Your task to perform on an android device: Clear the shopping cart on target.com. Search for usb-a on target.com, select the first entry, add it to the cart, then select checkout. Image 0: 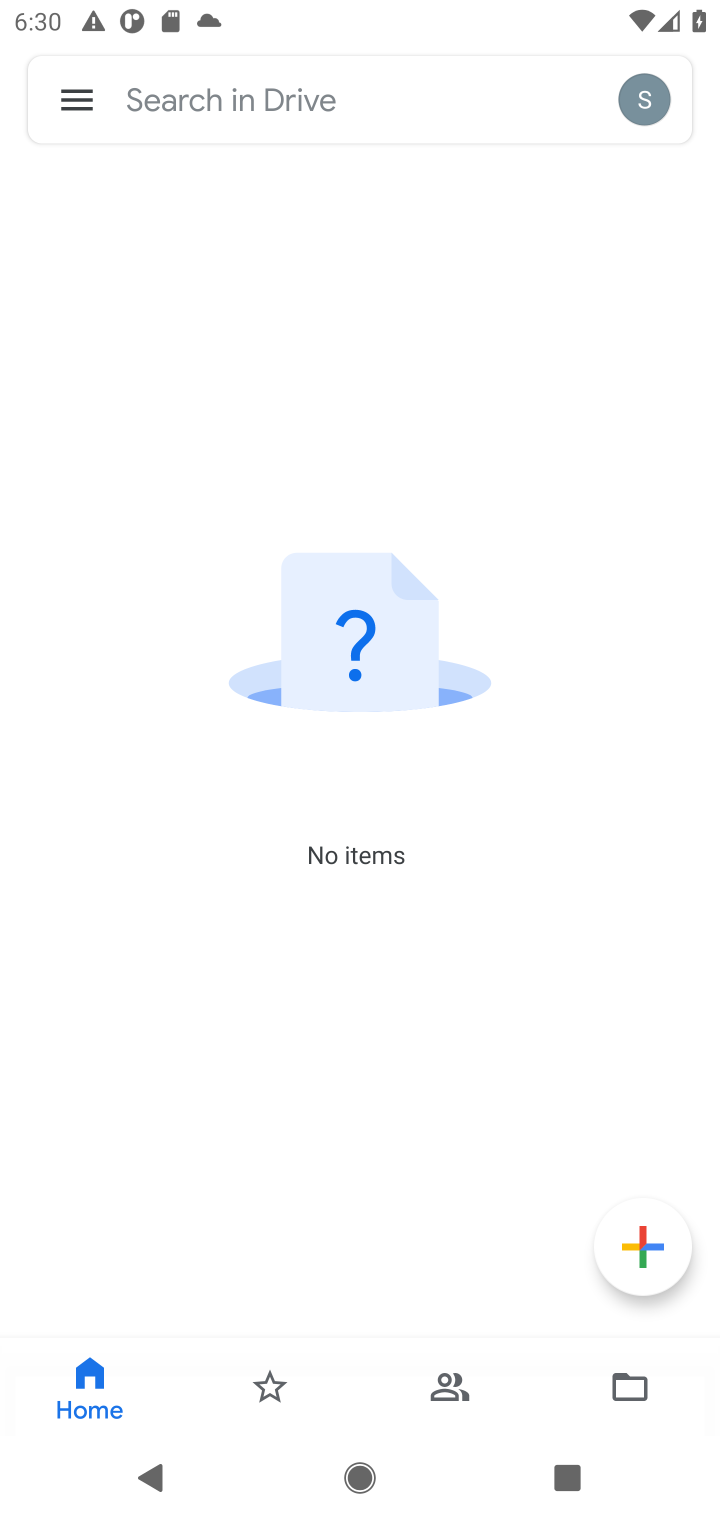
Step 0: press home button
Your task to perform on an android device: Clear the shopping cart on target.com. Search for usb-a on target.com, select the first entry, add it to the cart, then select checkout. Image 1: 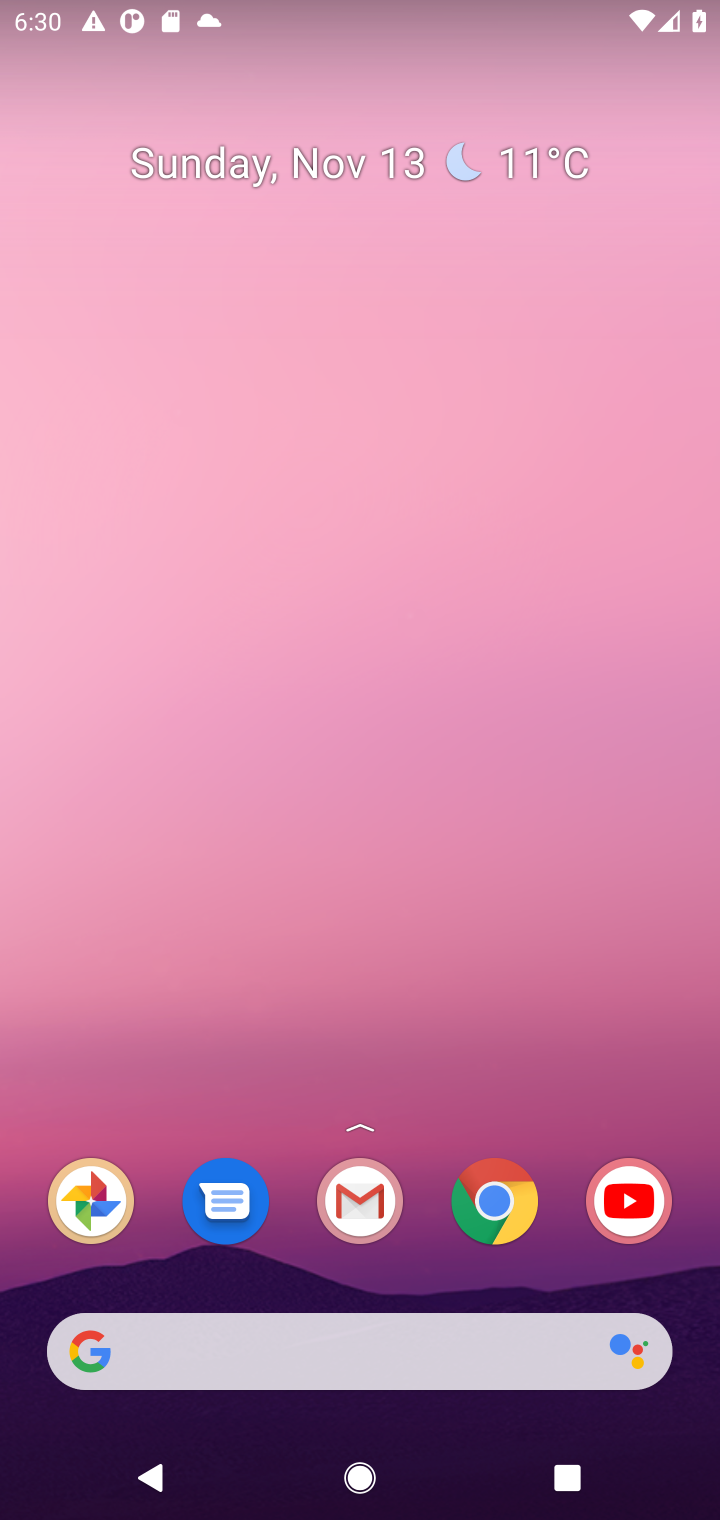
Step 1: drag from (429, 1292) to (713, 226)
Your task to perform on an android device: Clear the shopping cart on target.com. Search for usb-a on target.com, select the first entry, add it to the cart, then select checkout. Image 2: 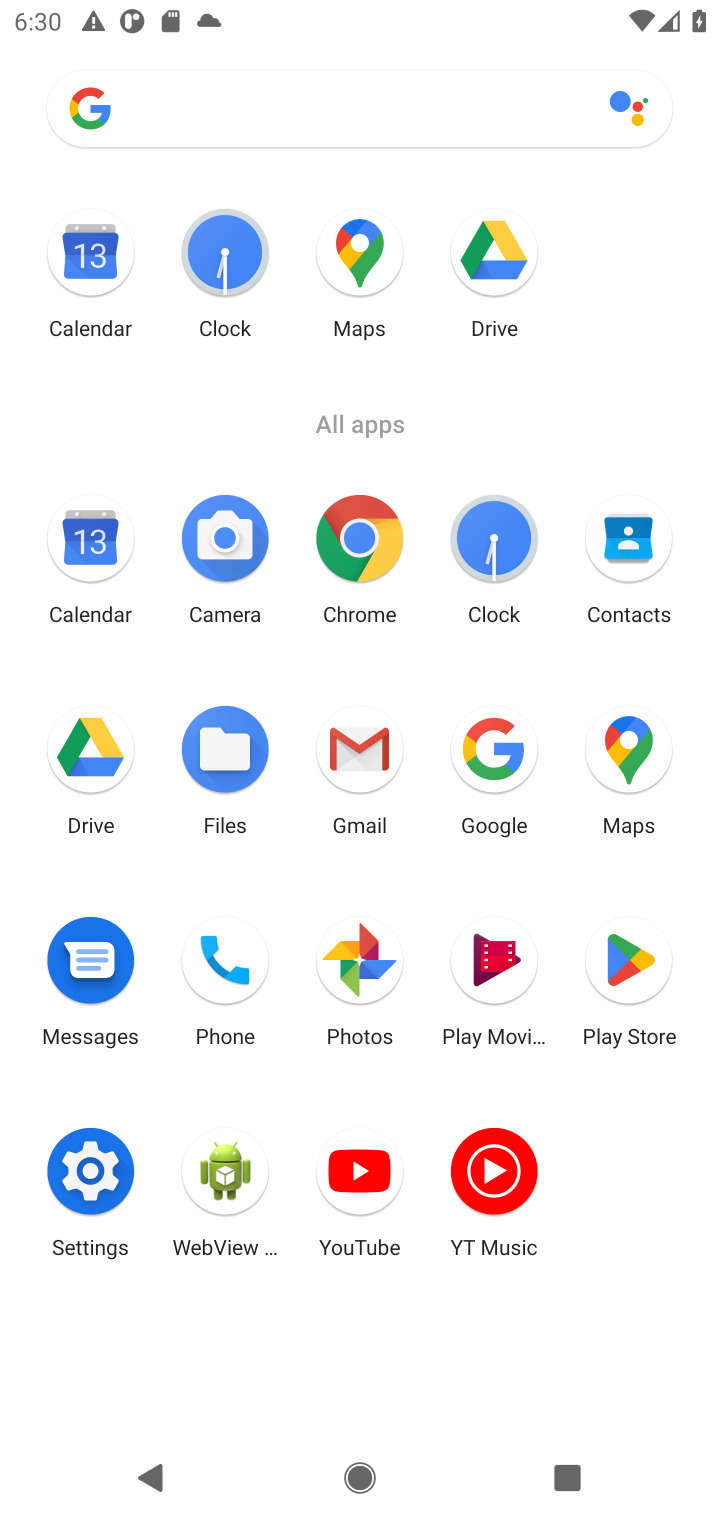
Step 2: click (351, 530)
Your task to perform on an android device: Clear the shopping cart on target.com. Search for usb-a on target.com, select the first entry, add it to the cart, then select checkout. Image 3: 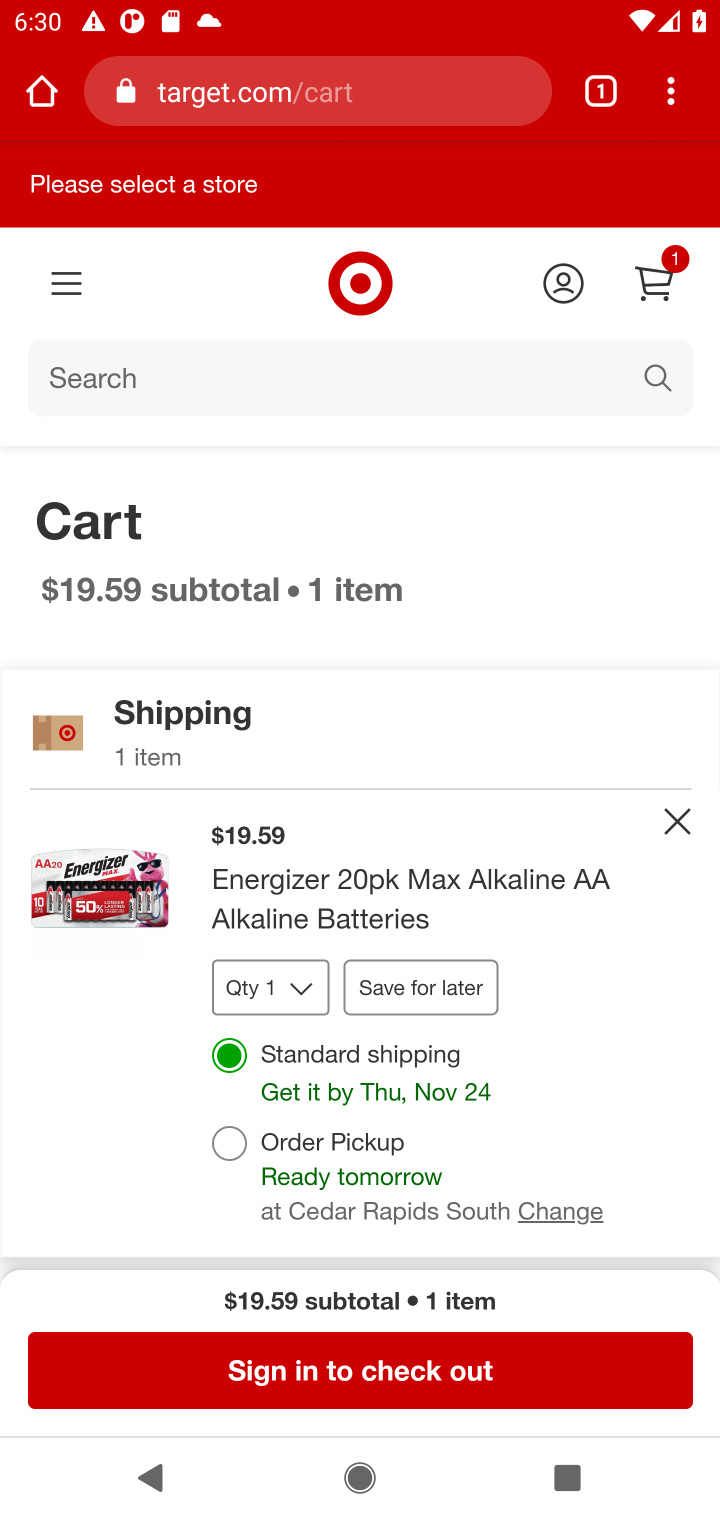
Step 3: click (328, 109)
Your task to perform on an android device: Clear the shopping cart on target.com. Search for usb-a on target.com, select the first entry, add it to the cart, then select checkout. Image 4: 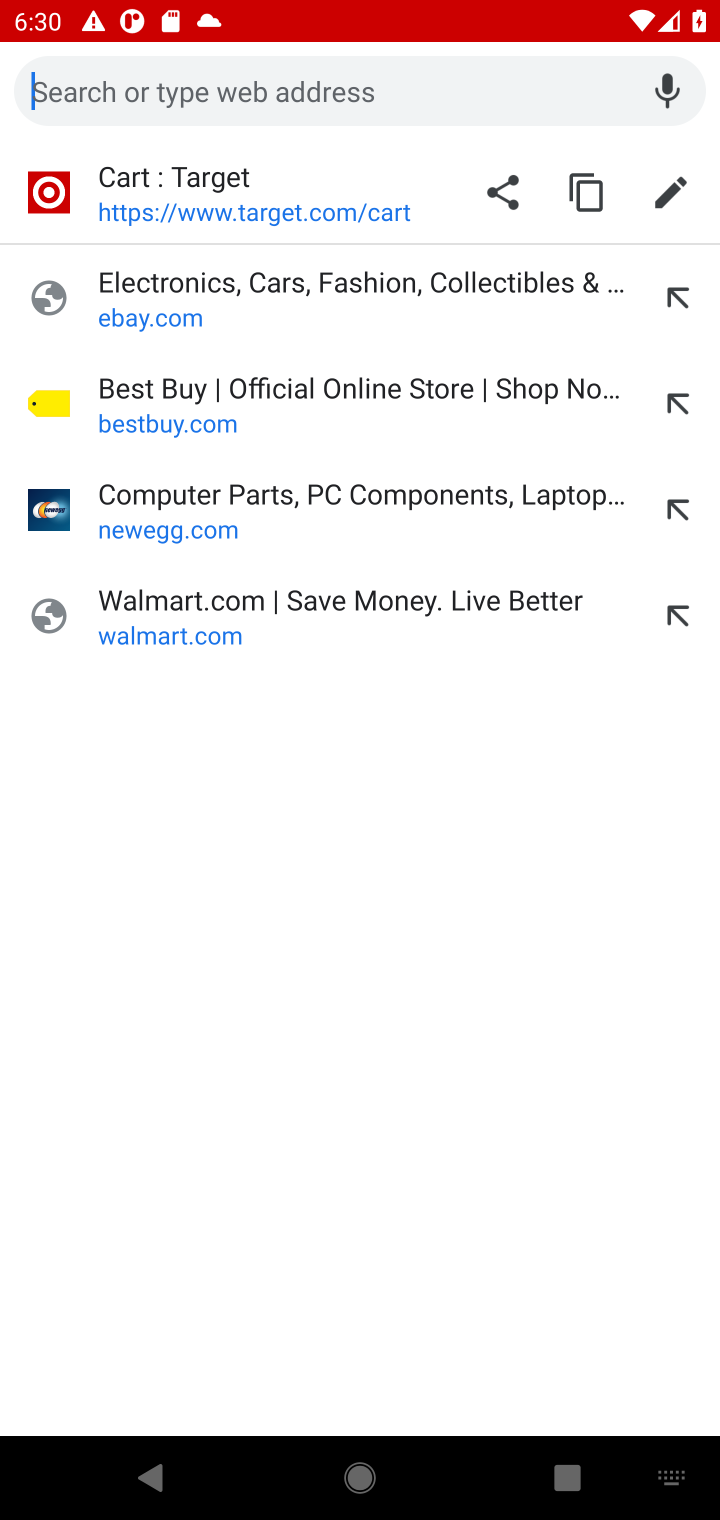
Step 4: type "target.com"
Your task to perform on an android device: Clear the shopping cart on target.com. Search for usb-a on target.com, select the first entry, add it to the cart, then select checkout. Image 5: 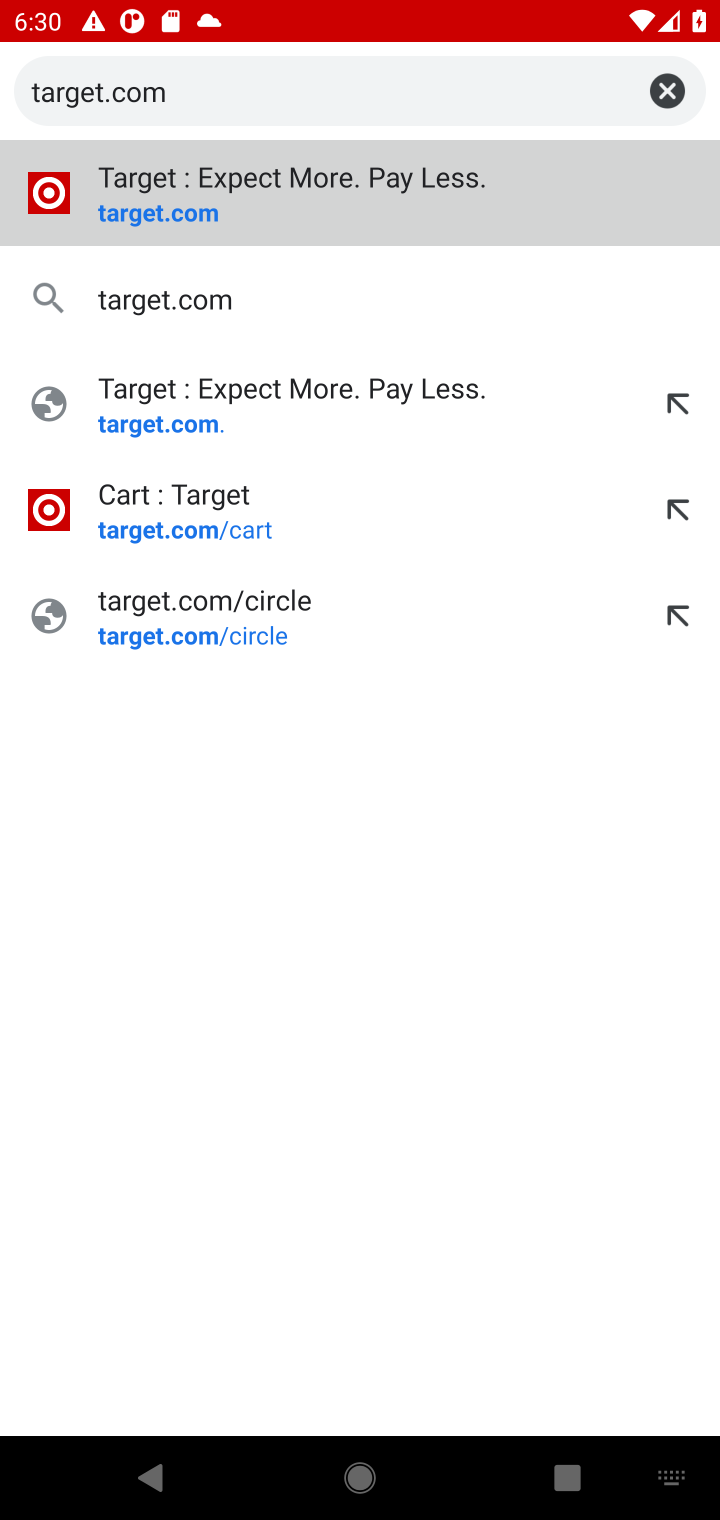
Step 5: press enter
Your task to perform on an android device: Clear the shopping cart on target.com. Search for usb-a on target.com, select the first entry, add it to the cart, then select checkout. Image 6: 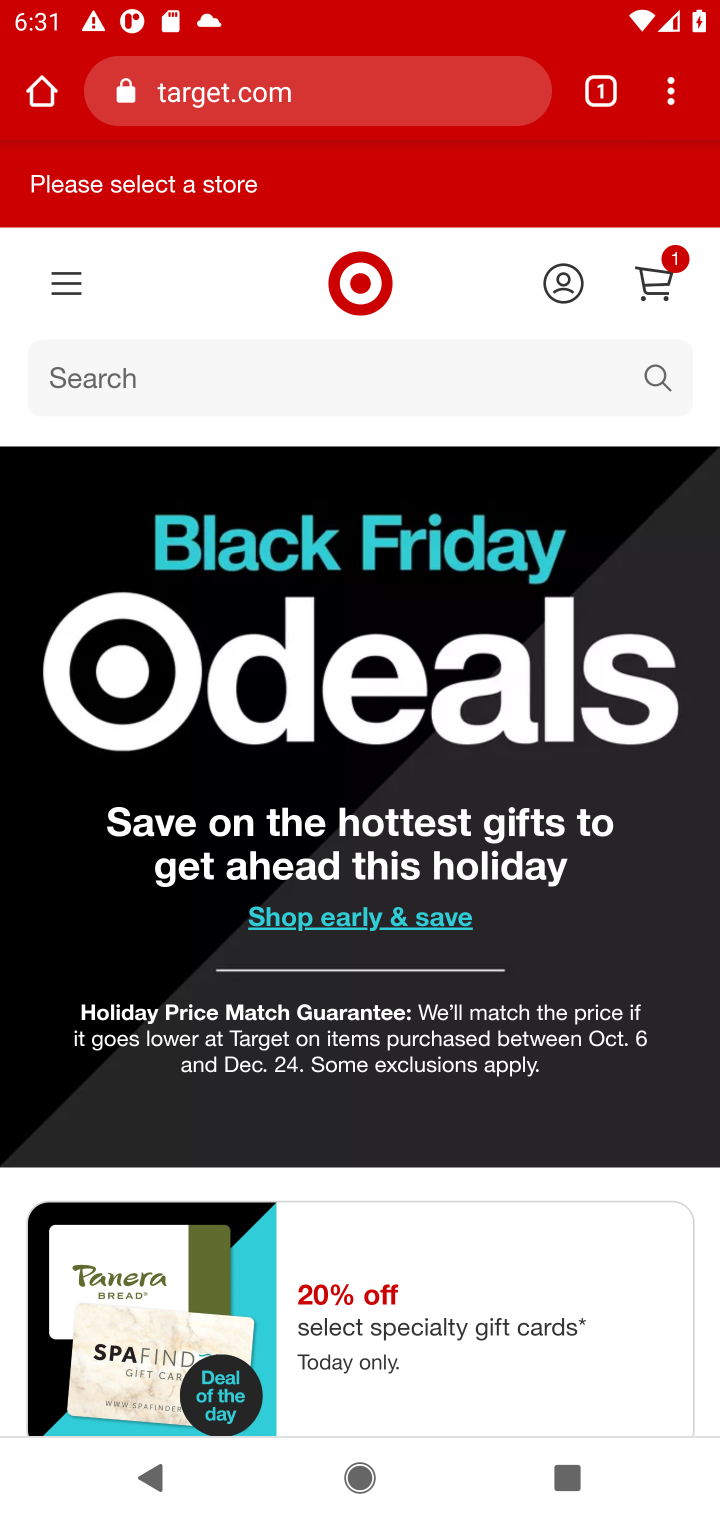
Step 6: click (647, 270)
Your task to perform on an android device: Clear the shopping cart on target.com. Search for usb-a on target.com, select the first entry, add it to the cart, then select checkout. Image 7: 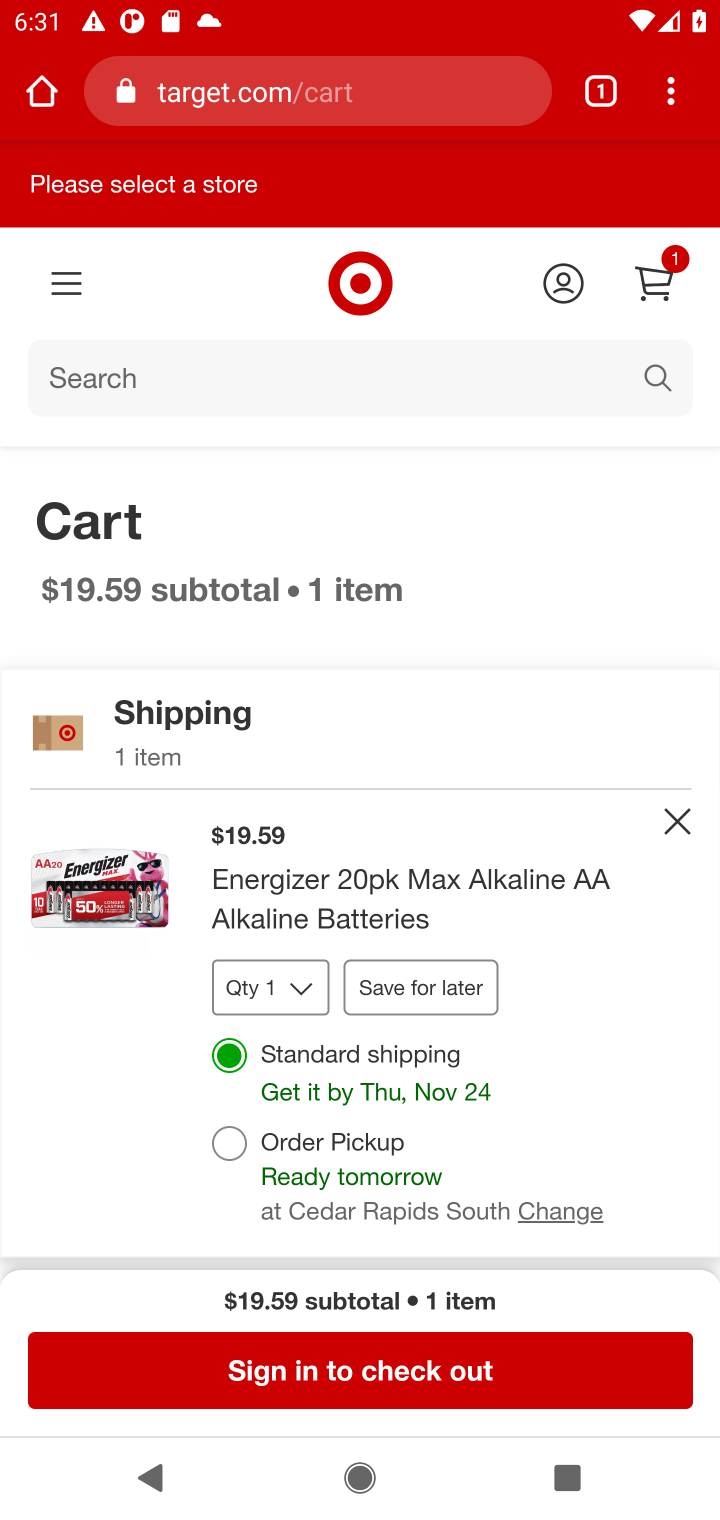
Step 7: click (649, 271)
Your task to perform on an android device: Clear the shopping cart on target.com. Search for usb-a on target.com, select the first entry, add it to the cart, then select checkout. Image 8: 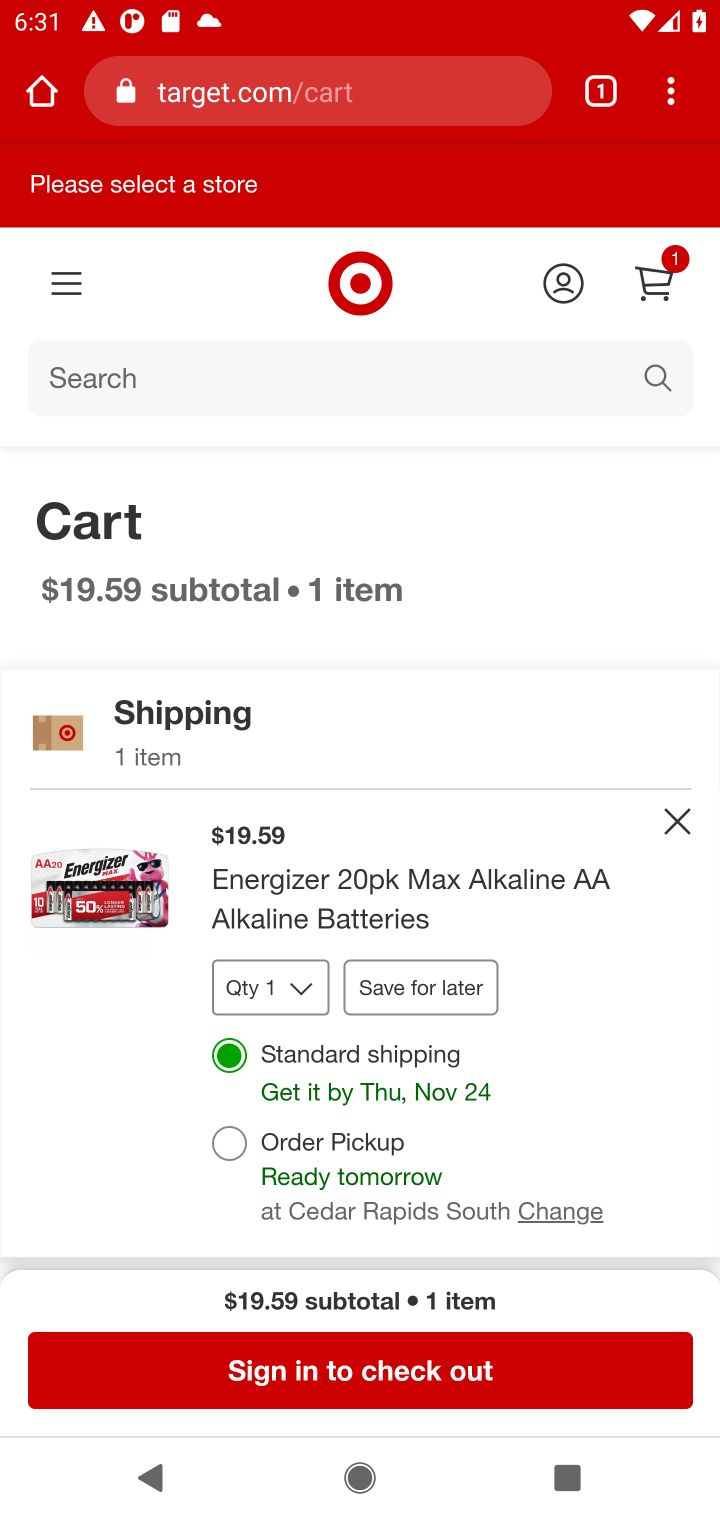
Step 8: click (677, 819)
Your task to perform on an android device: Clear the shopping cart on target.com. Search for usb-a on target.com, select the first entry, add it to the cart, then select checkout. Image 9: 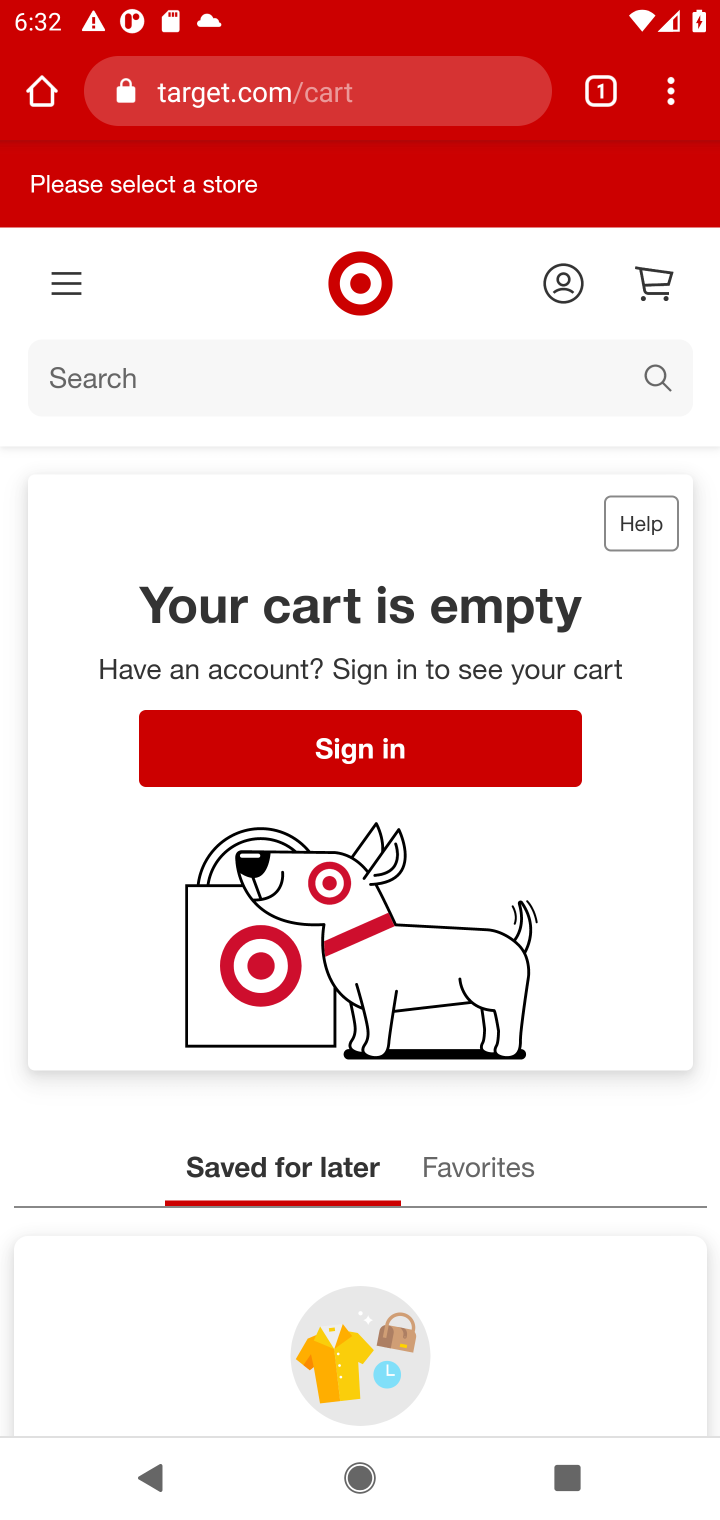
Step 9: click (410, 368)
Your task to perform on an android device: Clear the shopping cart on target.com. Search for usb-a on target.com, select the first entry, add it to the cart, then select checkout. Image 10: 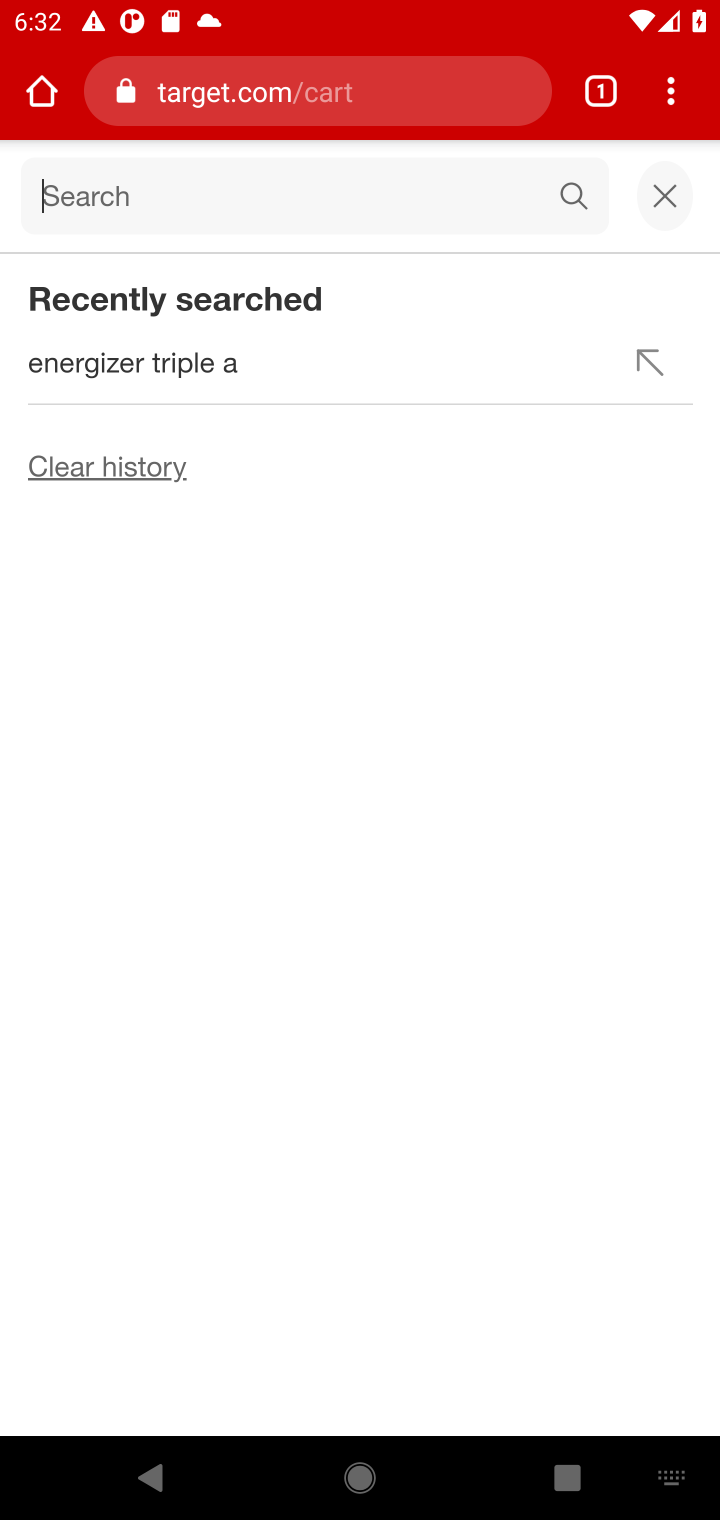
Step 10: type "usb -a "
Your task to perform on an android device: Clear the shopping cart on target.com. Search for usb-a on target.com, select the first entry, add it to the cart, then select checkout. Image 11: 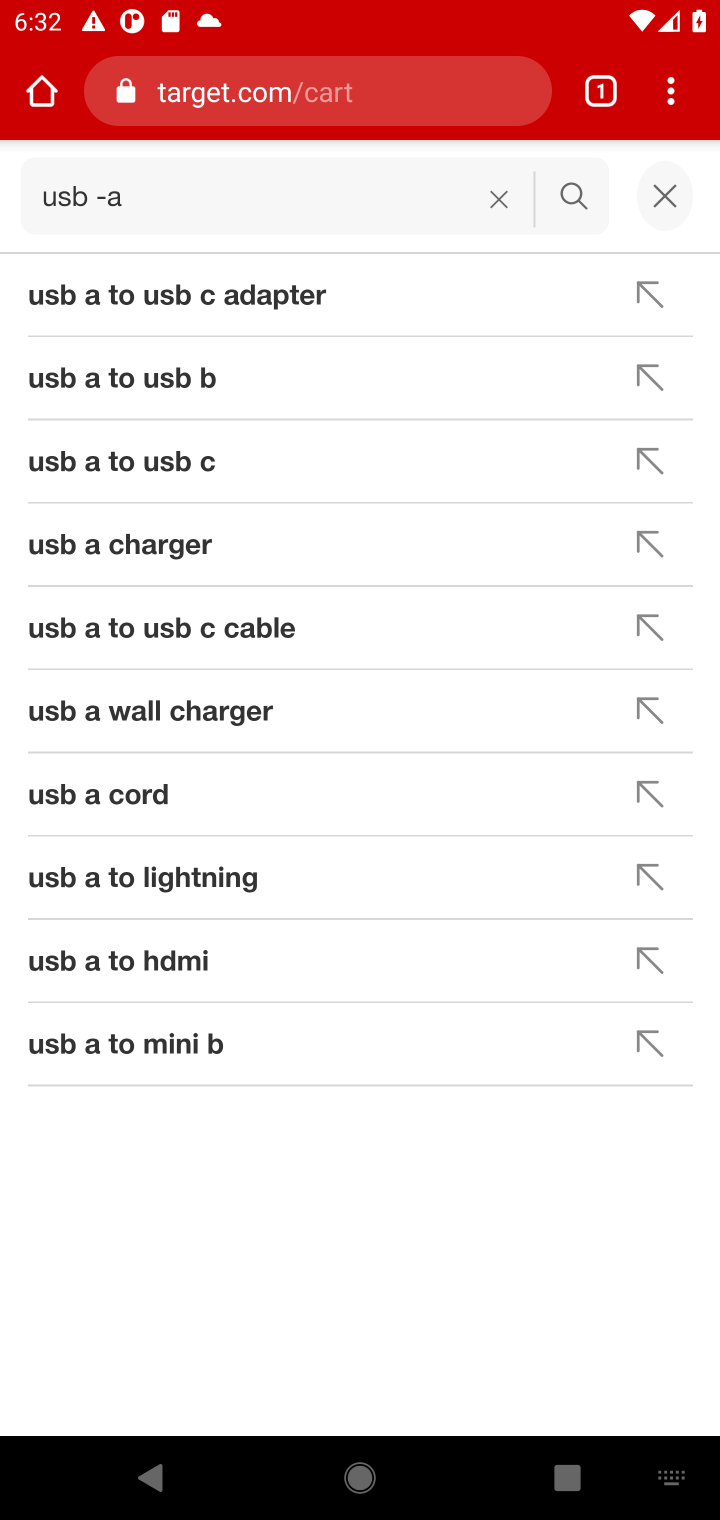
Step 11: press enter
Your task to perform on an android device: Clear the shopping cart on target.com. Search for usb-a on target.com, select the first entry, add it to the cart, then select checkout. Image 12: 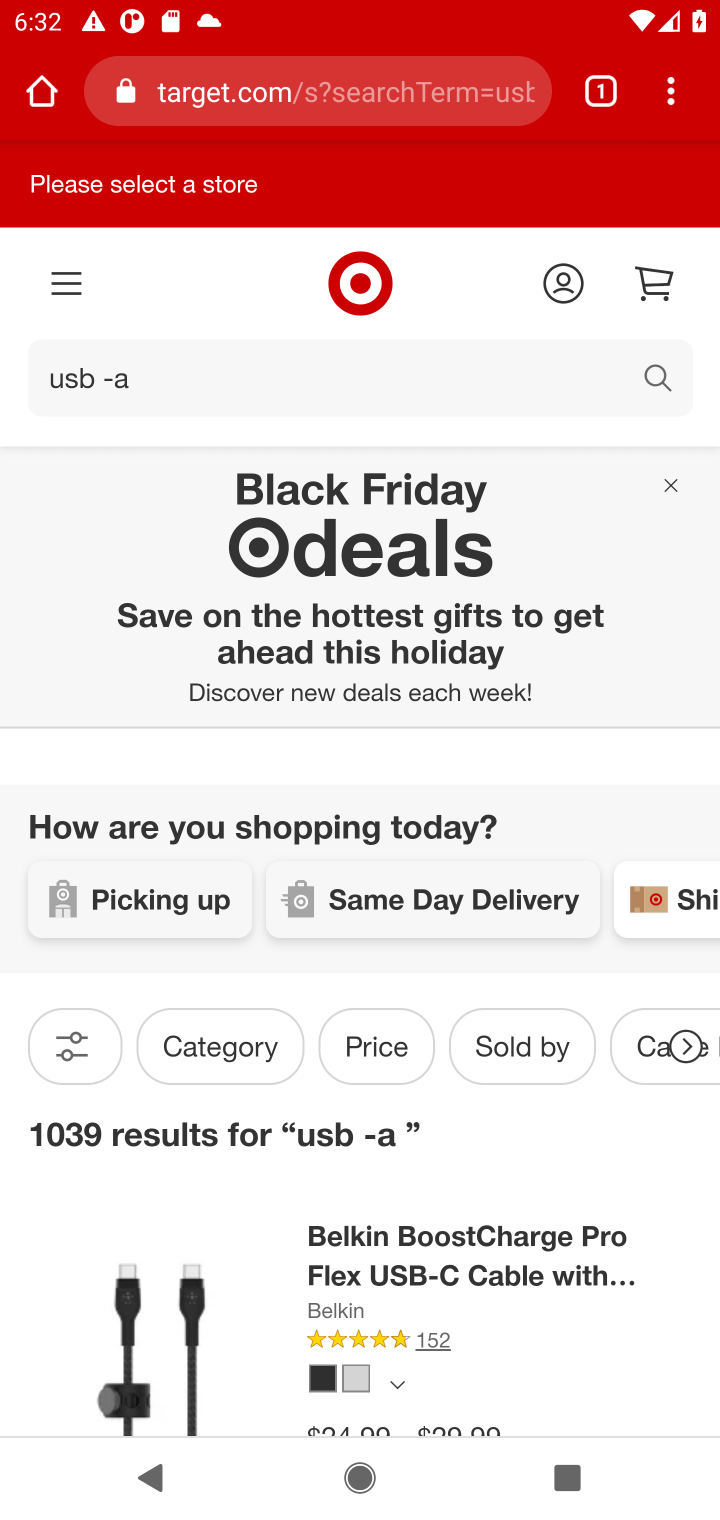
Step 12: drag from (505, 1304) to (156, 559)
Your task to perform on an android device: Clear the shopping cart on target.com. Search for usb-a on target.com, select the first entry, add it to the cart, then select checkout. Image 13: 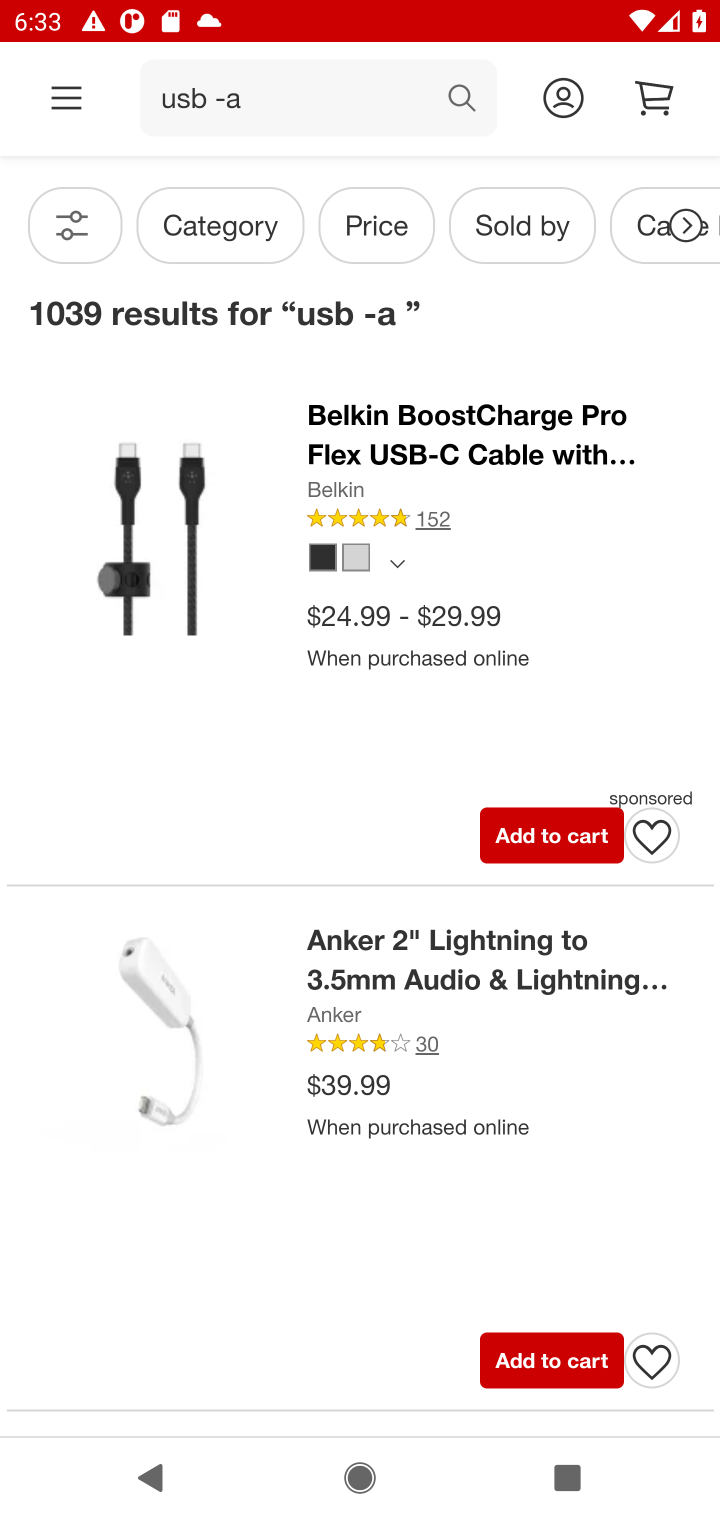
Step 13: click (511, 844)
Your task to perform on an android device: Clear the shopping cart on target.com. Search for usb-a on target.com, select the first entry, add it to the cart, then select checkout. Image 14: 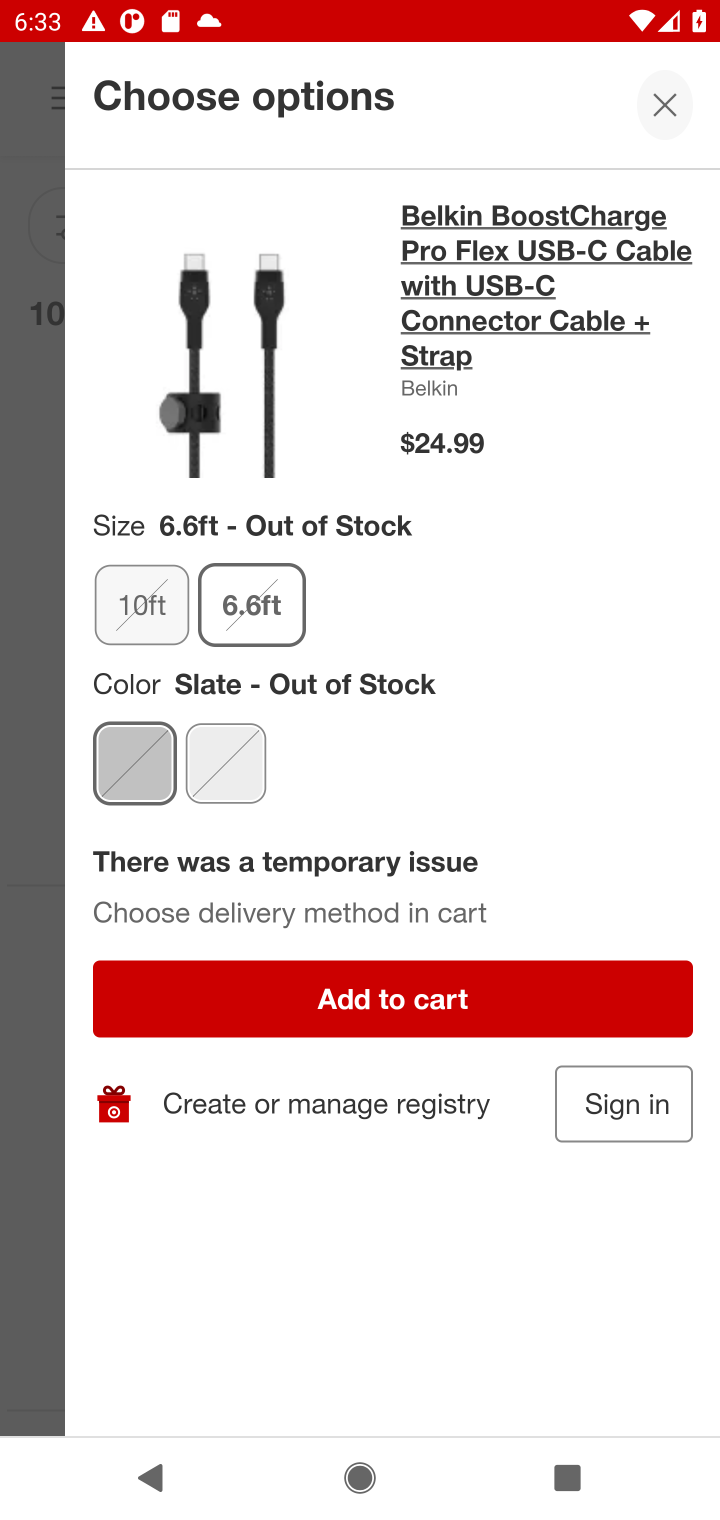
Step 14: click (476, 1001)
Your task to perform on an android device: Clear the shopping cart on target.com. Search for usb-a on target.com, select the first entry, add it to the cart, then select checkout. Image 15: 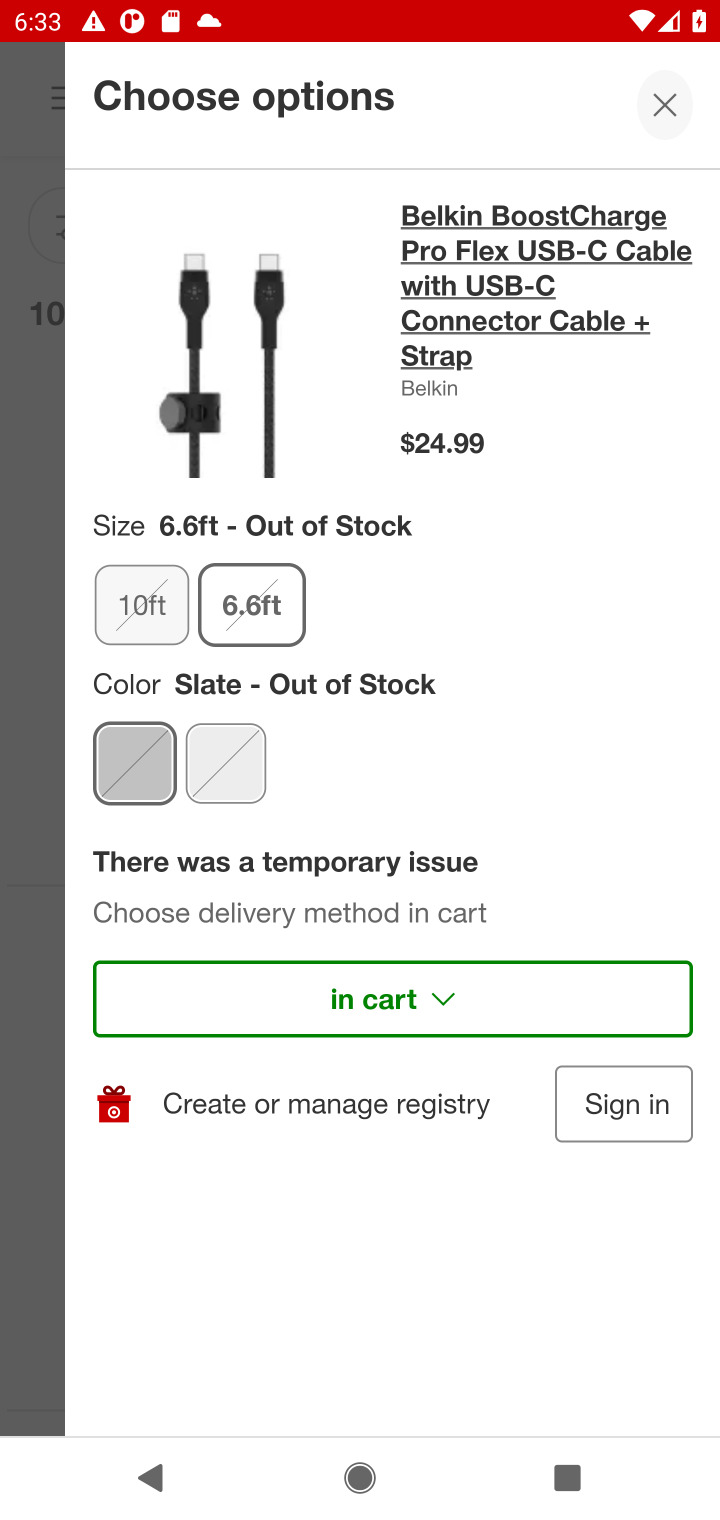
Step 15: click (493, 999)
Your task to perform on an android device: Clear the shopping cart on target.com. Search for usb-a on target.com, select the first entry, add it to the cart, then select checkout. Image 16: 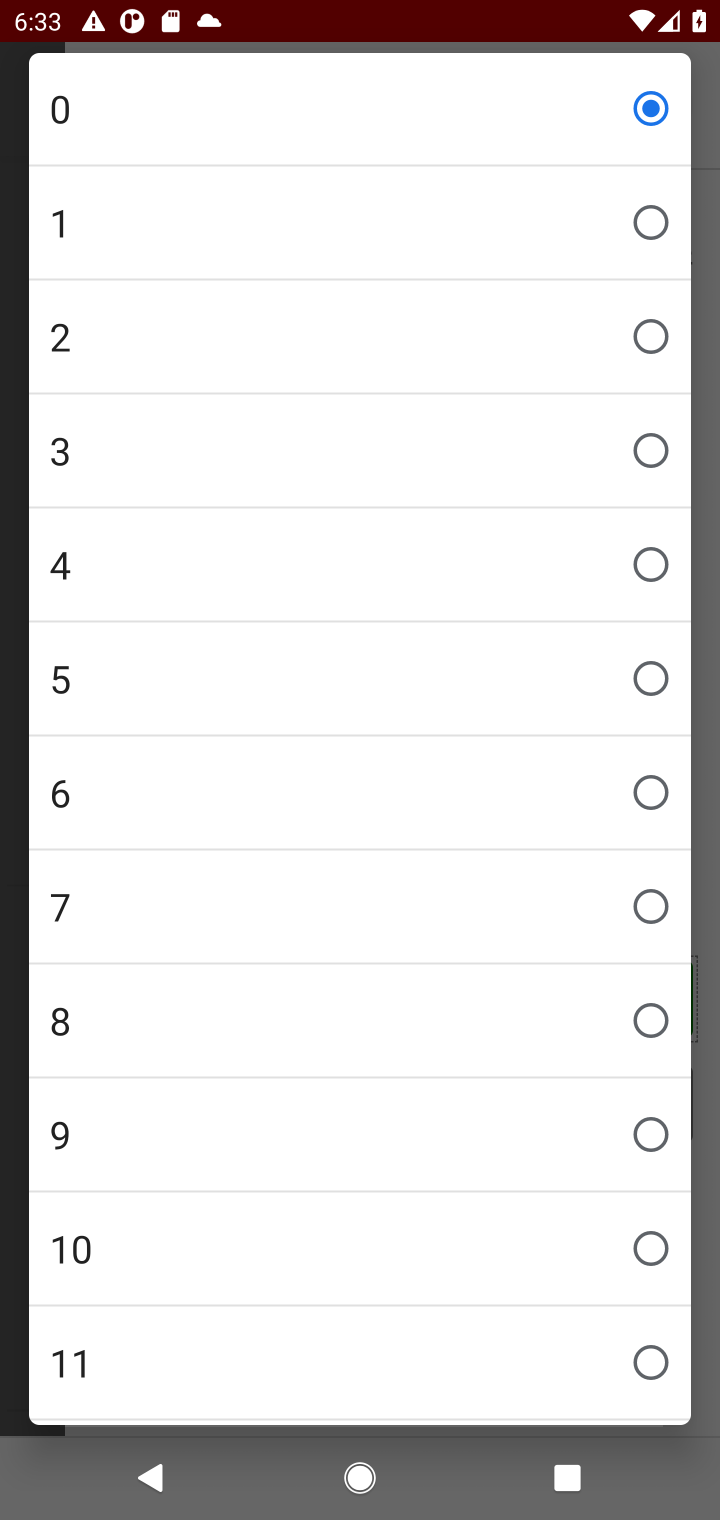
Step 16: click (457, 221)
Your task to perform on an android device: Clear the shopping cart on target.com. Search for usb-a on target.com, select the first entry, add it to the cart, then select checkout. Image 17: 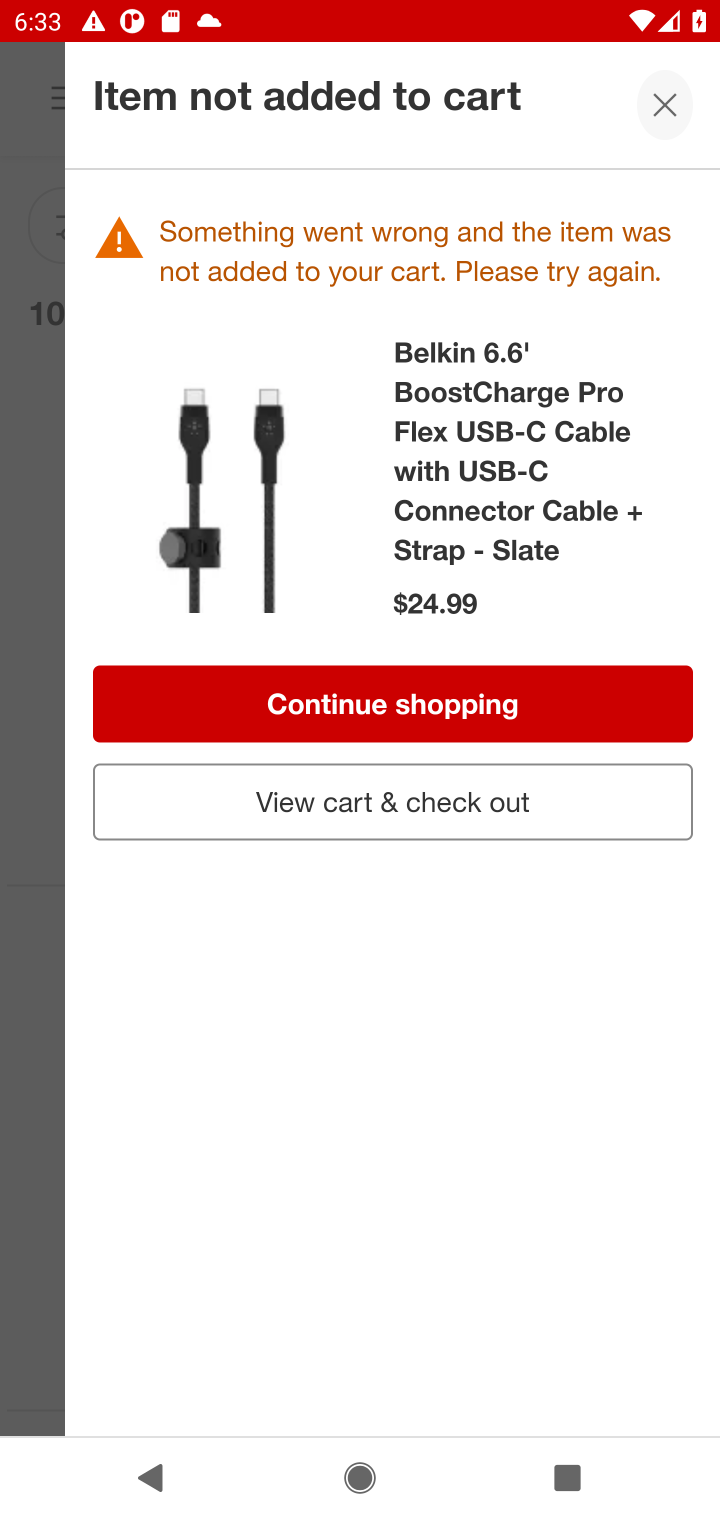
Step 17: click (479, 821)
Your task to perform on an android device: Clear the shopping cart on target.com. Search for usb-a on target.com, select the first entry, add it to the cart, then select checkout. Image 18: 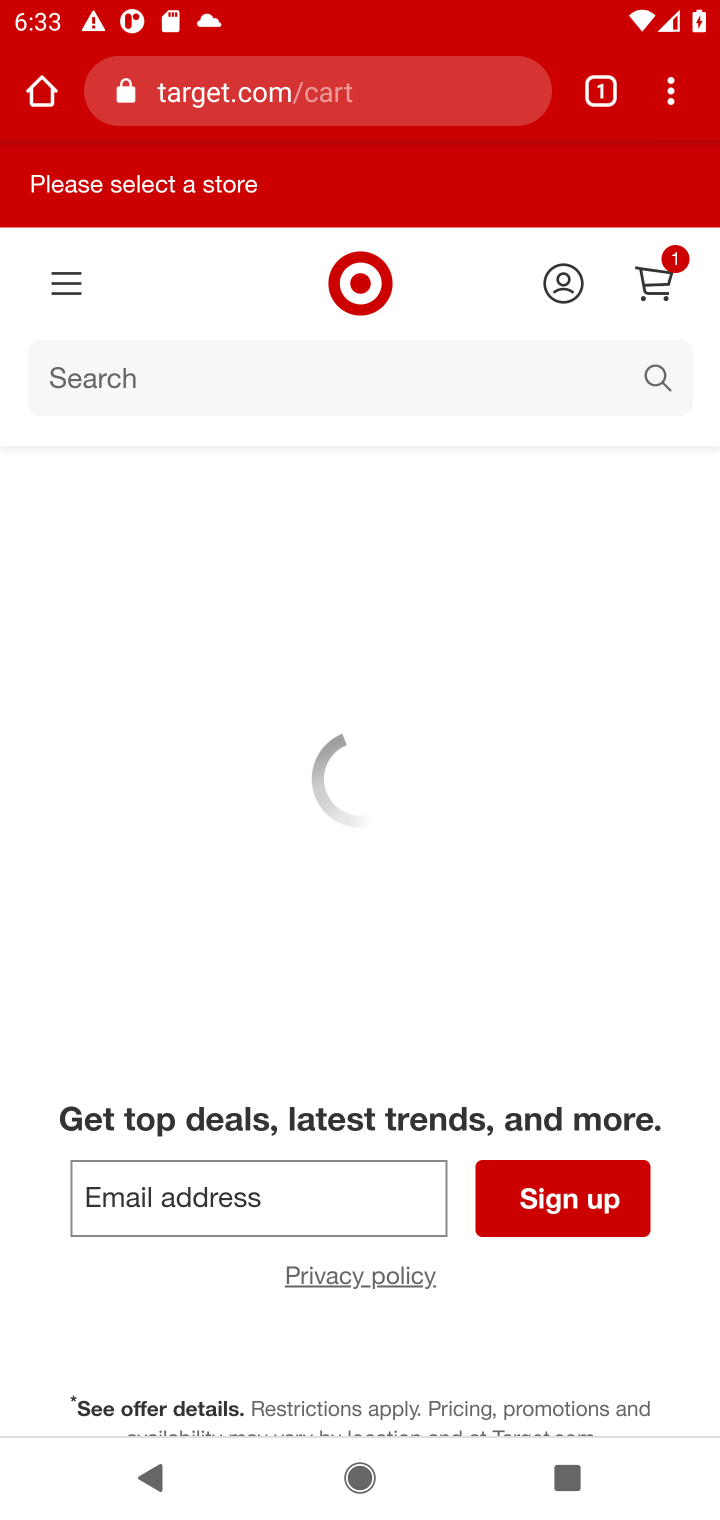
Step 18: task complete